Your task to perform on an android device: Go to sound settings Image 0: 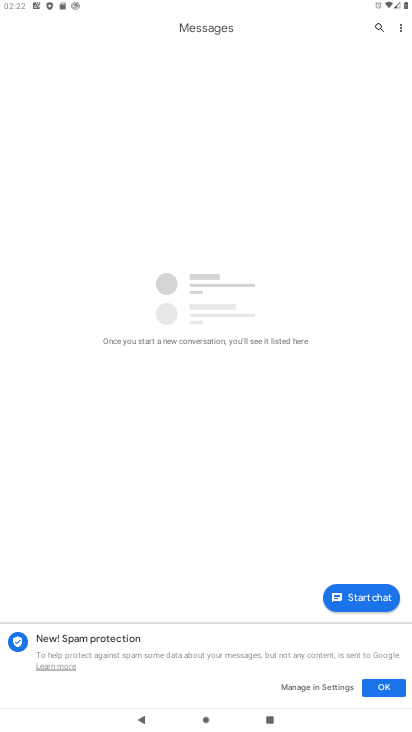
Step 0: press home button
Your task to perform on an android device: Go to sound settings Image 1: 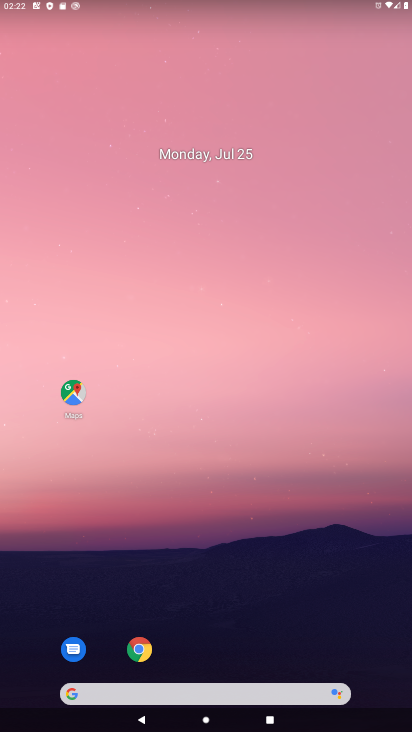
Step 1: drag from (371, 679) to (326, 191)
Your task to perform on an android device: Go to sound settings Image 2: 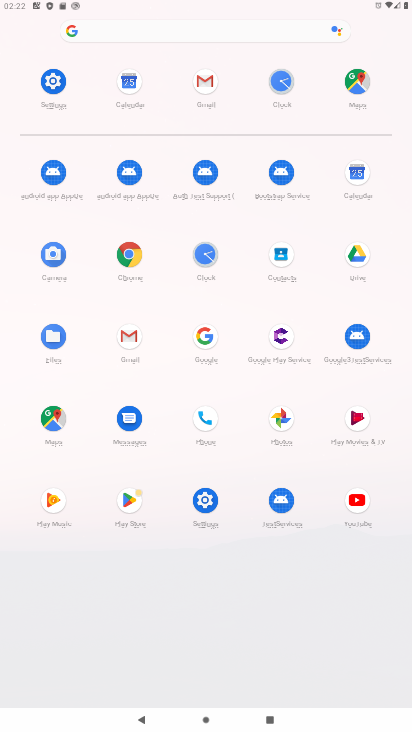
Step 2: click (205, 502)
Your task to perform on an android device: Go to sound settings Image 3: 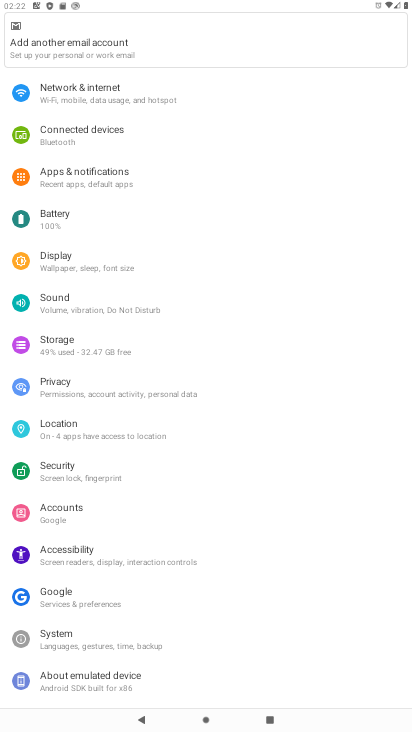
Step 3: click (47, 302)
Your task to perform on an android device: Go to sound settings Image 4: 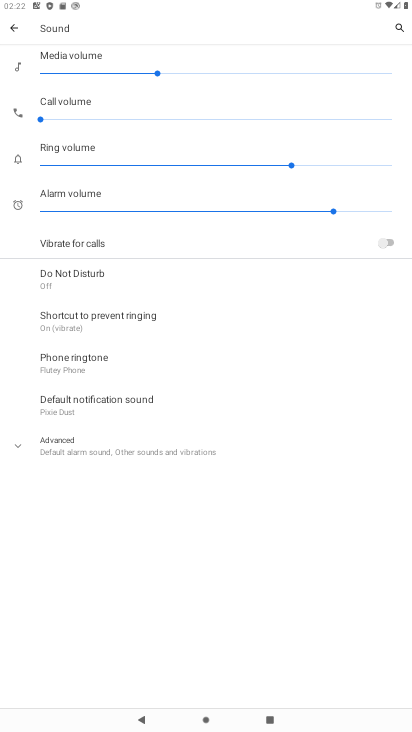
Step 4: click (17, 442)
Your task to perform on an android device: Go to sound settings Image 5: 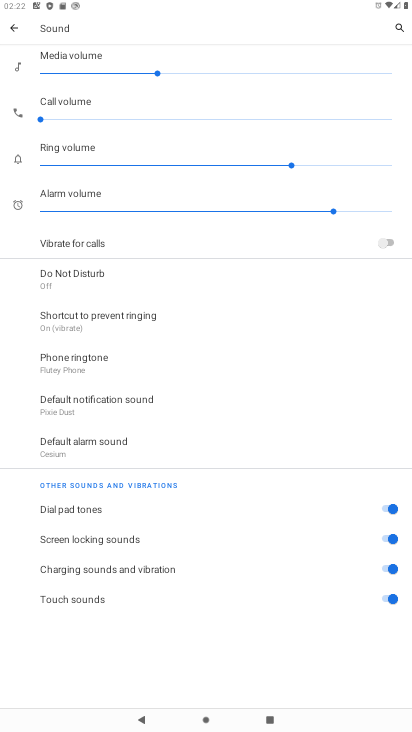
Step 5: task complete